Your task to perform on an android device: Open Yahoo.com Image 0: 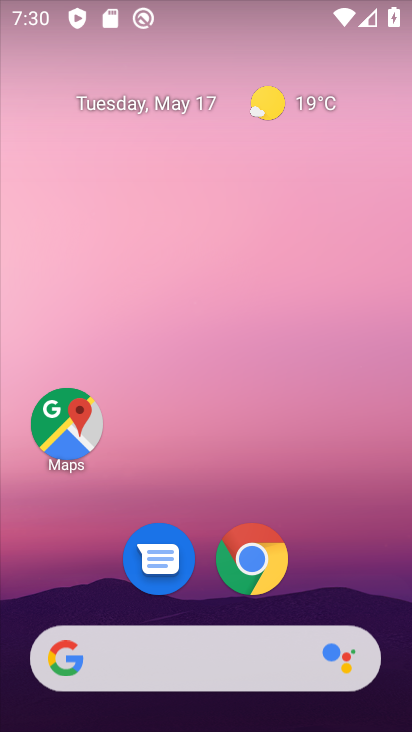
Step 0: drag from (242, 181) to (244, 89)
Your task to perform on an android device: Open Yahoo.com Image 1: 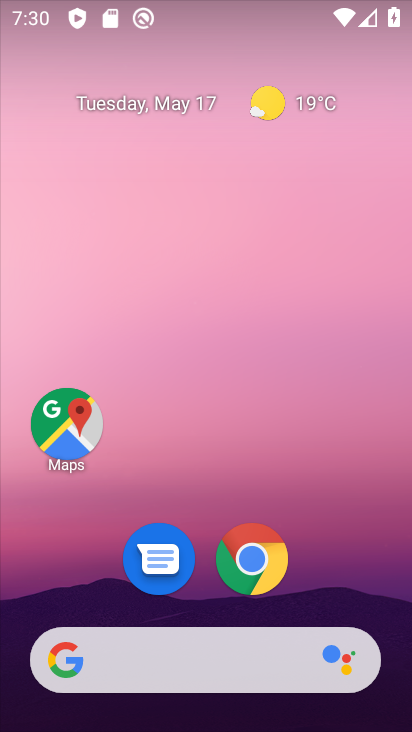
Step 1: click (138, 663)
Your task to perform on an android device: Open Yahoo.com Image 2: 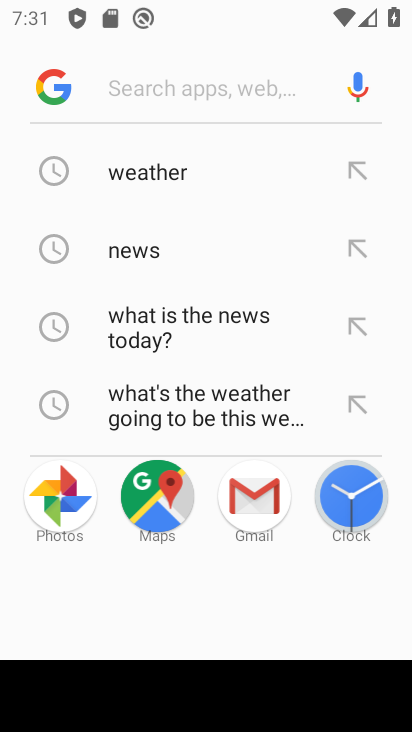
Step 2: type "yahoo.com"
Your task to perform on an android device: Open Yahoo.com Image 3: 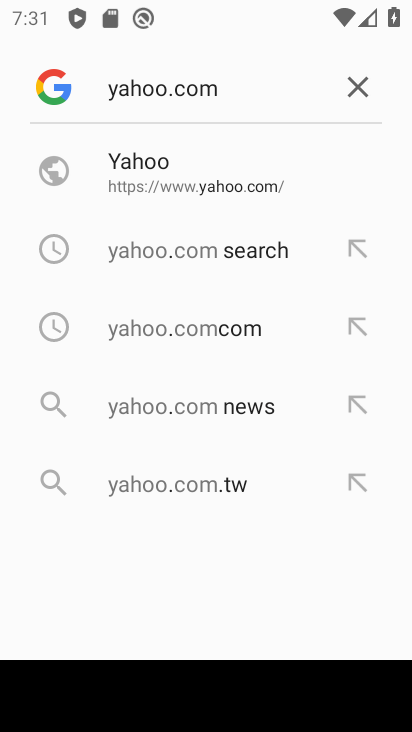
Step 3: click (143, 176)
Your task to perform on an android device: Open Yahoo.com Image 4: 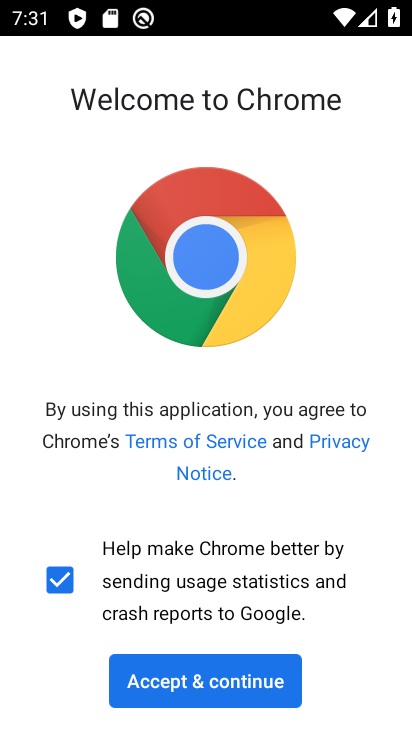
Step 4: click (194, 695)
Your task to perform on an android device: Open Yahoo.com Image 5: 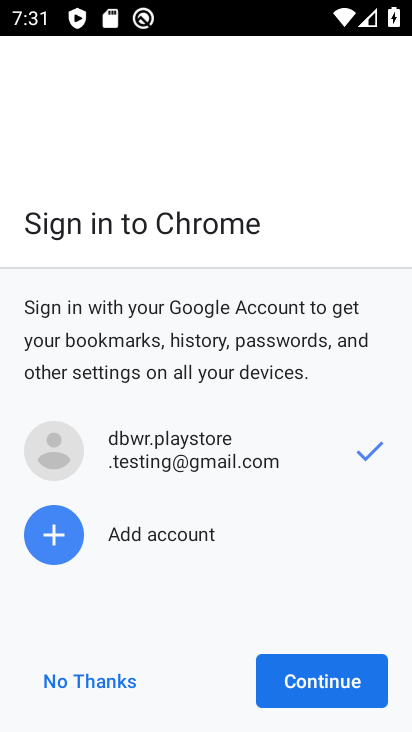
Step 5: click (301, 665)
Your task to perform on an android device: Open Yahoo.com Image 6: 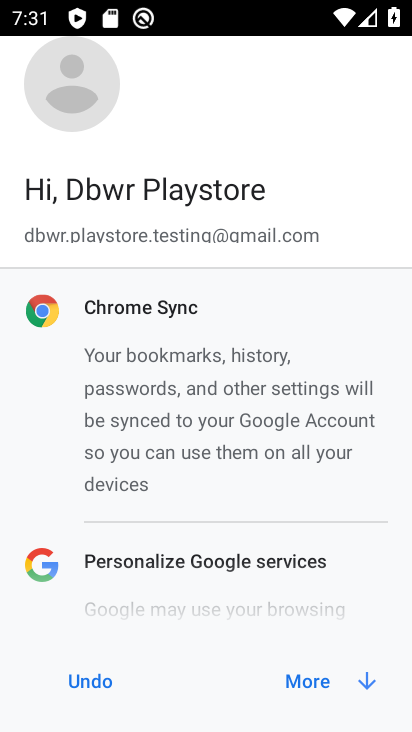
Step 6: click (295, 685)
Your task to perform on an android device: Open Yahoo.com Image 7: 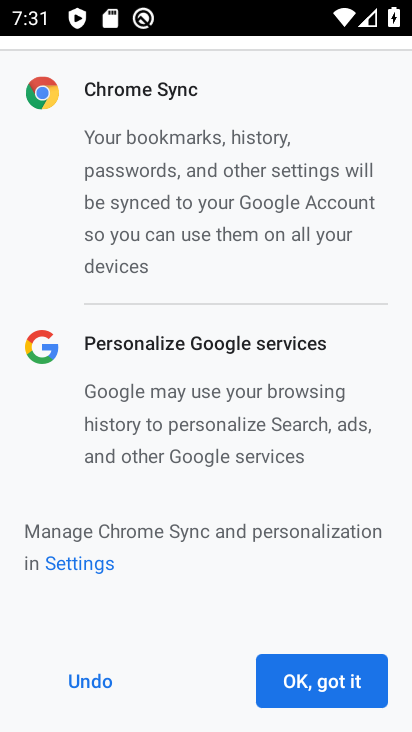
Step 7: click (295, 686)
Your task to perform on an android device: Open Yahoo.com Image 8: 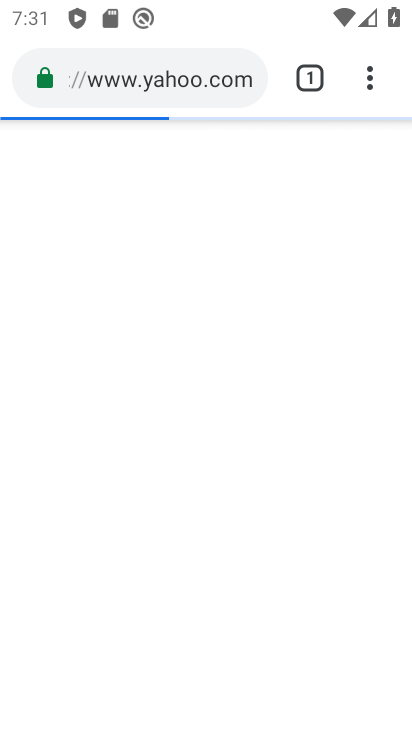
Step 8: task complete